Your task to perform on an android device: search for starred emails in the gmail app Image 0: 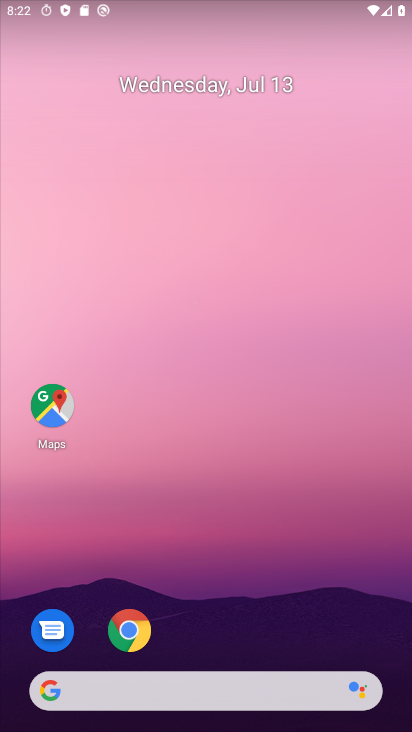
Step 0: drag from (173, 635) to (280, 107)
Your task to perform on an android device: search for starred emails in the gmail app Image 1: 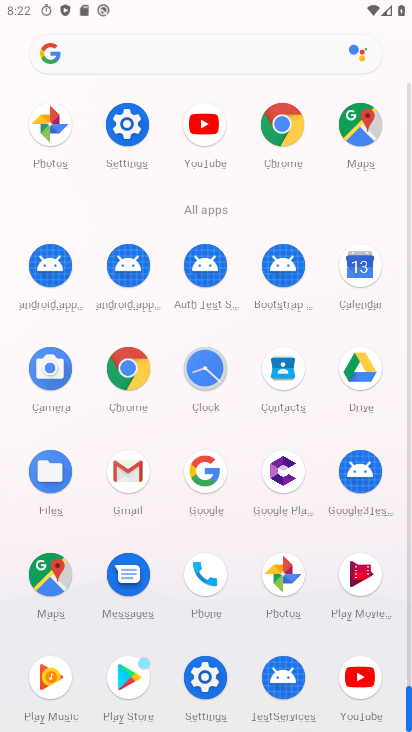
Step 1: click (122, 477)
Your task to perform on an android device: search for starred emails in the gmail app Image 2: 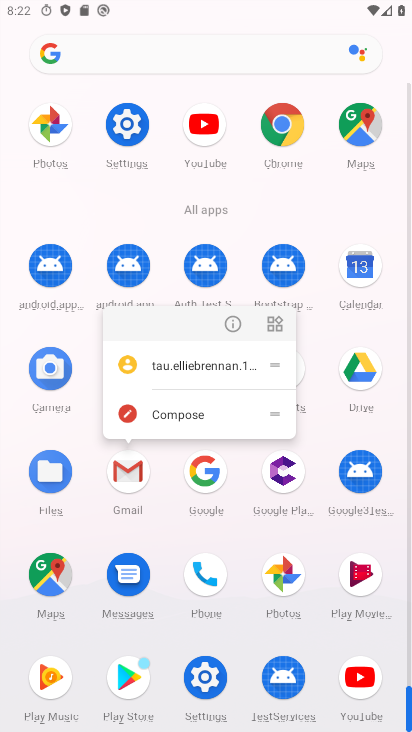
Step 2: click (231, 317)
Your task to perform on an android device: search for starred emails in the gmail app Image 3: 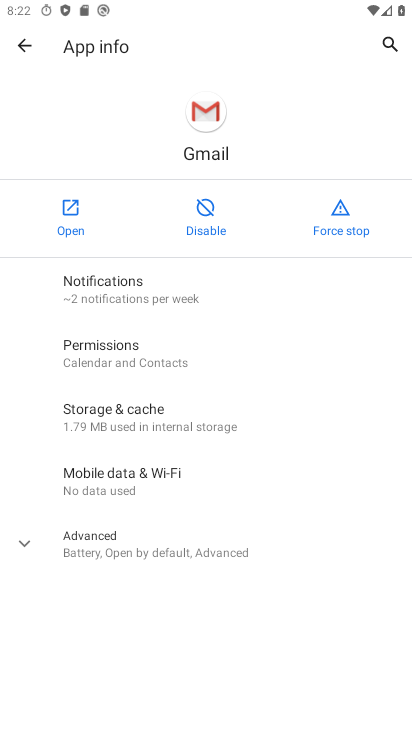
Step 3: click (71, 213)
Your task to perform on an android device: search for starred emails in the gmail app Image 4: 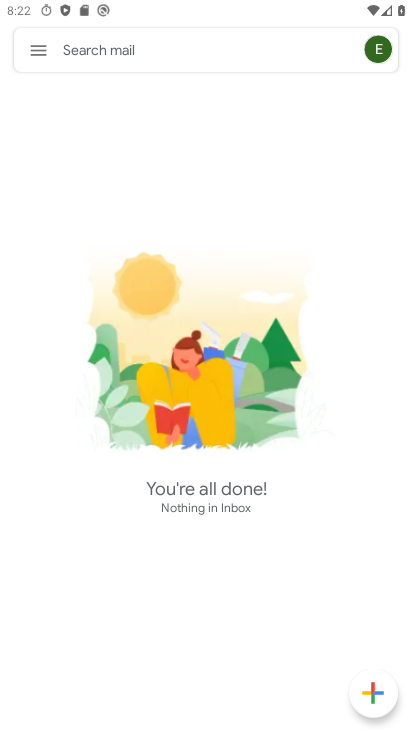
Step 4: drag from (178, 619) to (232, 209)
Your task to perform on an android device: search for starred emails in the gmail app Image 5: 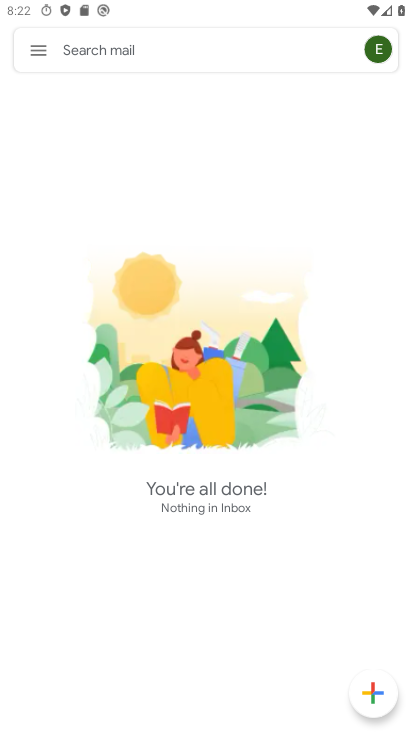
Step 5: click (29, 53)
Your task to perform on an android device: search for starred emails in the gmail app Image 6: 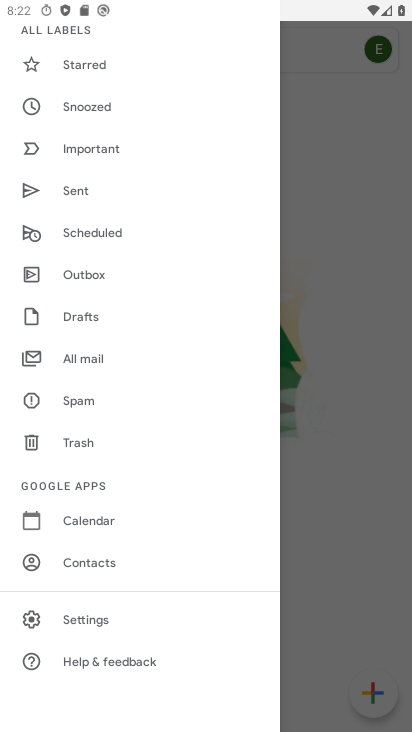
Step 6: click (96, 65)
Your task to perform on an android device: search for starred emails in the gmail app Image 7: 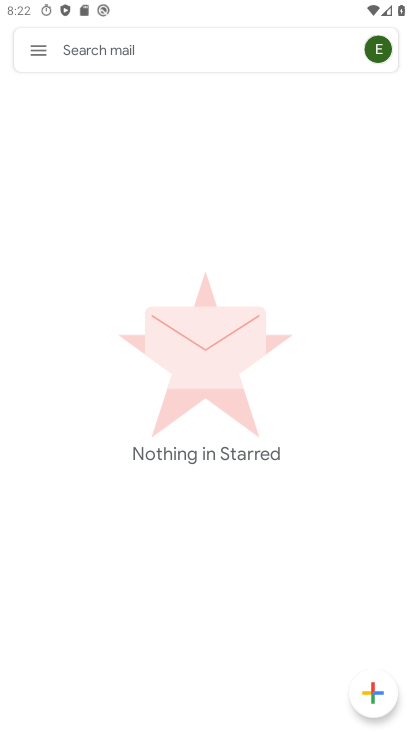
Step 7: task complete